Your task to perform on an android device: change keyboard looks Image 0: 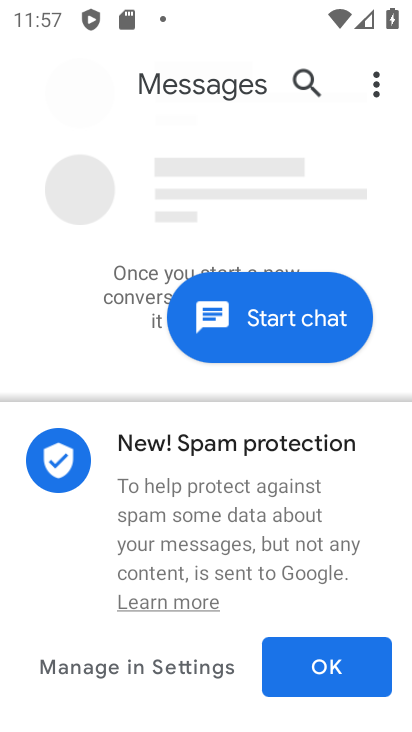
Step 0: press home button
Your task to perform on an android device: change keyboard looks Image 1: 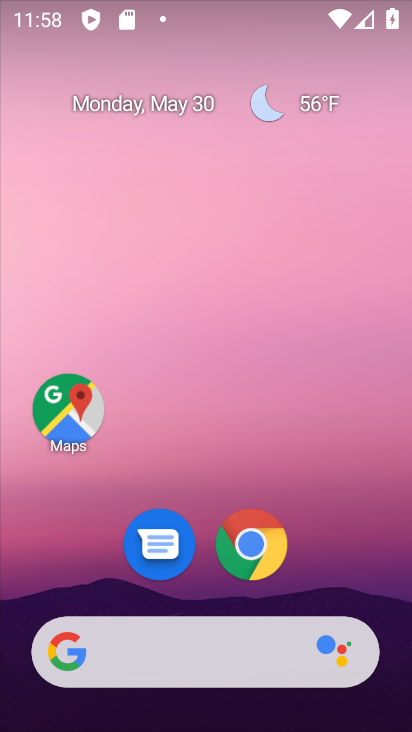
Step 1: drag from (345, 576) to (221, 15)
Your task to perform on an android device: change keyboard looks Image 2: 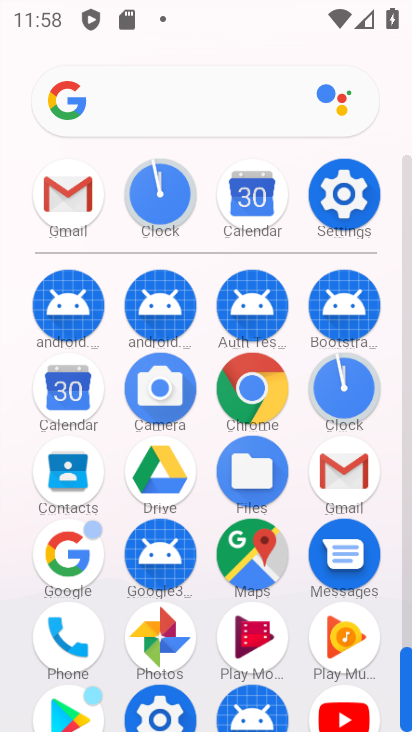
Step 2: click (343, 191)
Your task to perform on an android device: change keyboard looks Image 3: 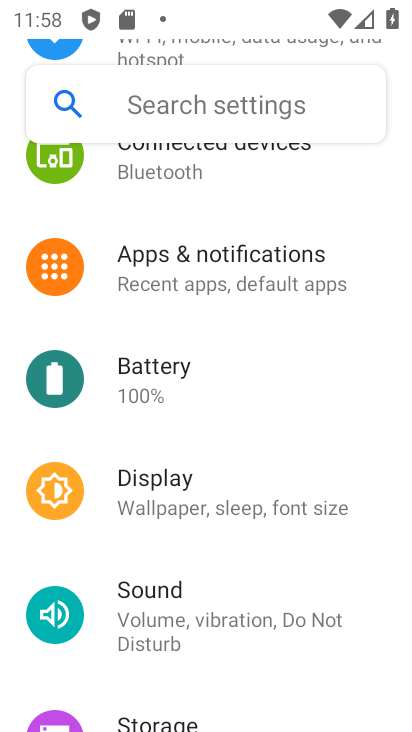
Step 3: drag from (247, 697) to (229, 306)
Your task to perform on an android device: change keyboard looks Image 4: 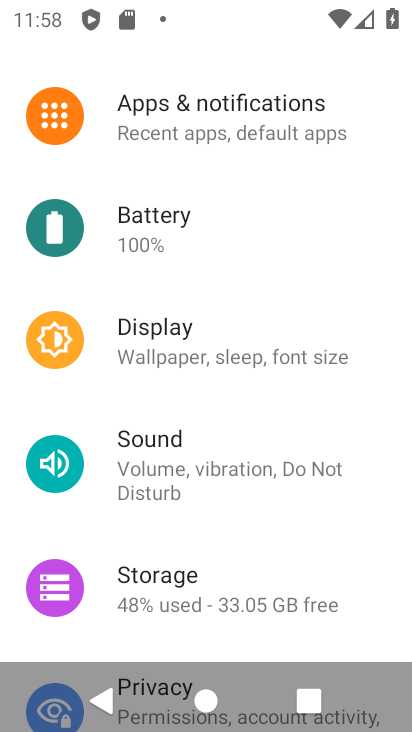
Step 4: drag from (262, 520) to (251, 37)
Your task to perform on an android device: change keyboard looks Image 5: 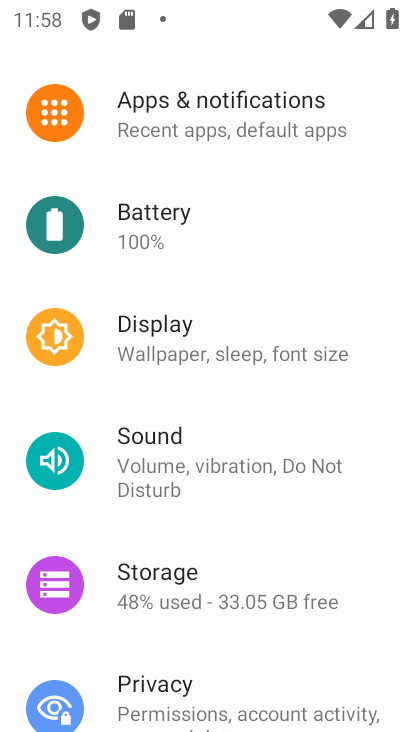
Step 5: drag from (226, 636) to (223, 293)
Your task to perform on an android device: change keyboard looks Image 6: 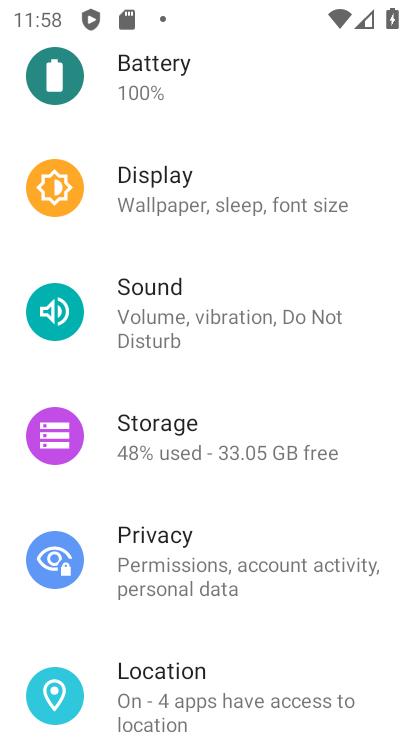
Step 6: drag from (229, 611) to (212, 285)
Your task to perform on an android device: change keyboard looks Image 7: 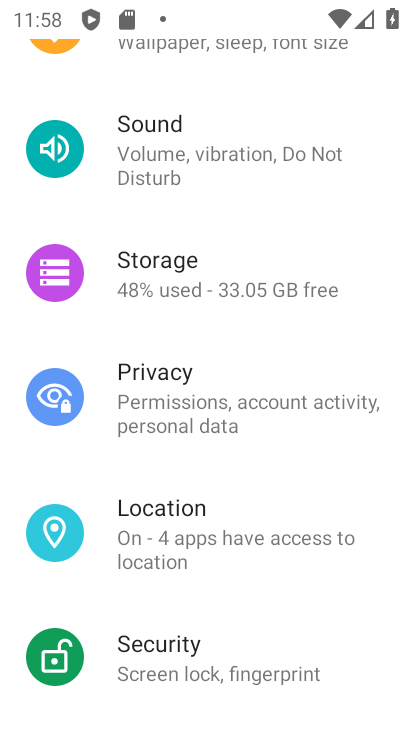
Step 7: drag from (275, 618) to (261, 434)
Your task to perform on an android device: change keyboard looks Image 8: 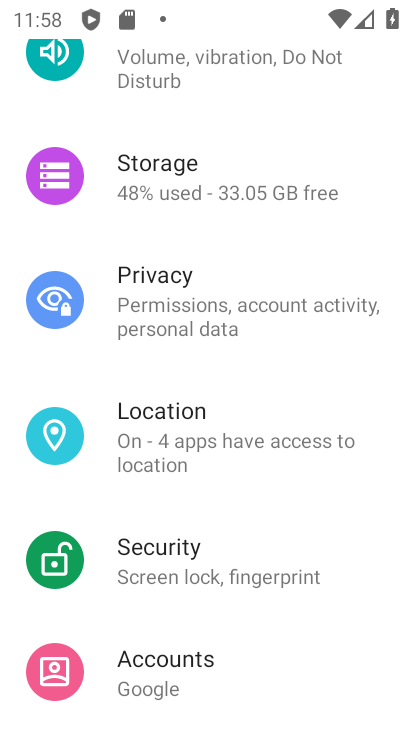
Step 8: drag from (231, 491) to (199, 96)
Your task to perform on an android device: change keyboard looks Image 9: 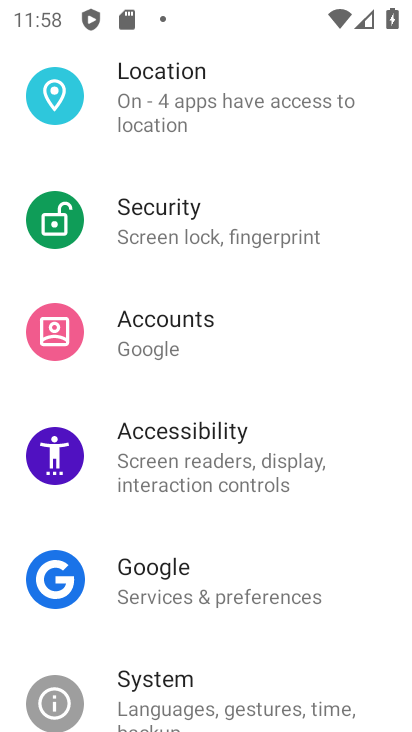
Step 9: drag from (220, 506) to (168, 159)
Your task to perform on an android device: change keyboard looks Image 10: 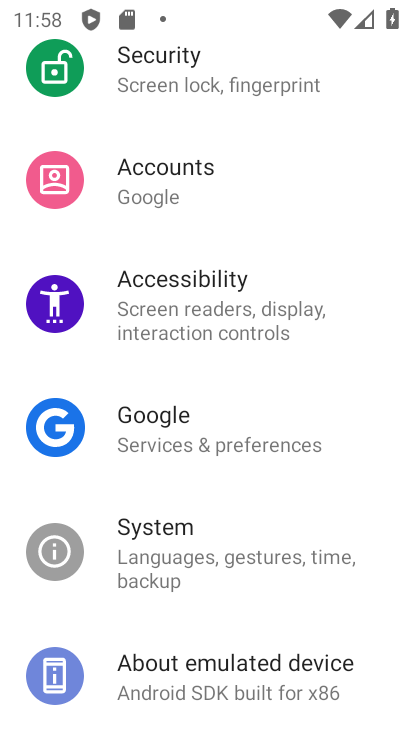
Step 10: click (157, 534)
Your task to perform on an android device: change keyboard looks Image 11: 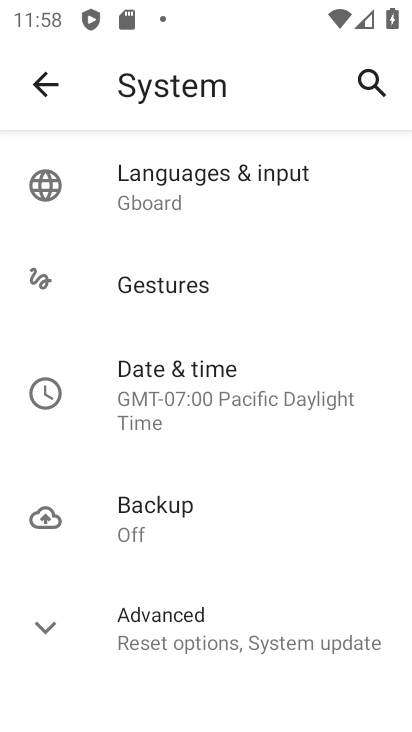
Step 11: click (150, 157)
Your task to perform on an android device: change keyboard looks Image 12: 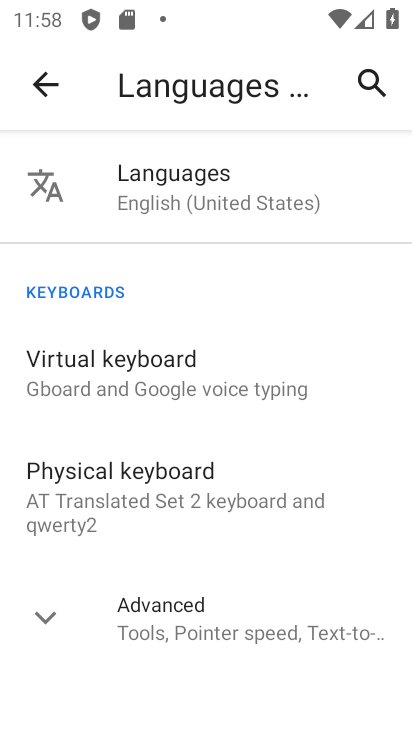
Step 12: click (119, 360)
Your task to perform on an android device: change keyboard looks Image 13: 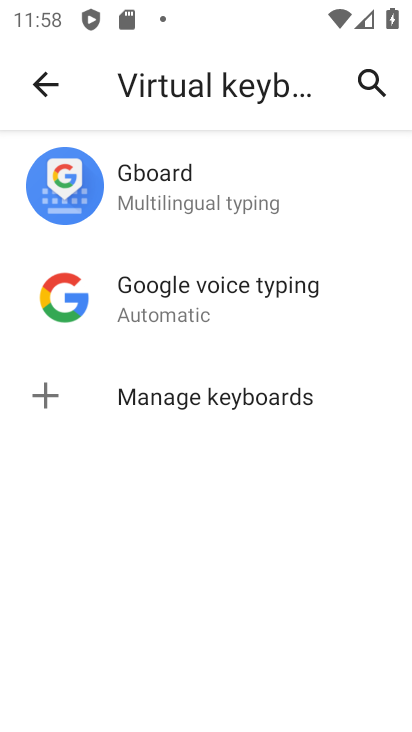
Step 13: click (136, 182)
Your task to perform on an android device: change keyboard looks Image 14: 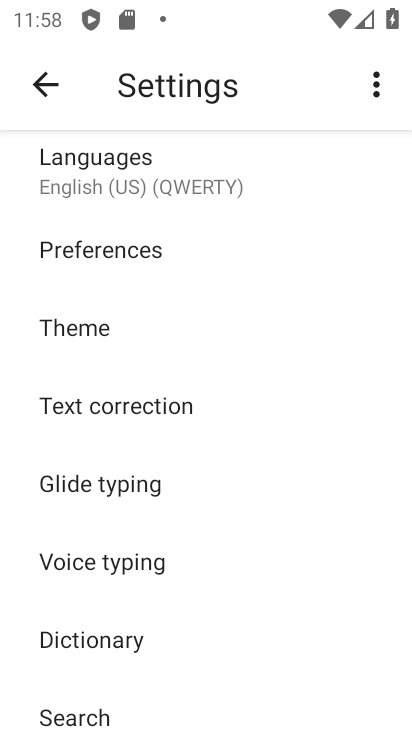
Step 14: click (66, 330)
Your task to perform on an android device: change keyboard looks Image 15: 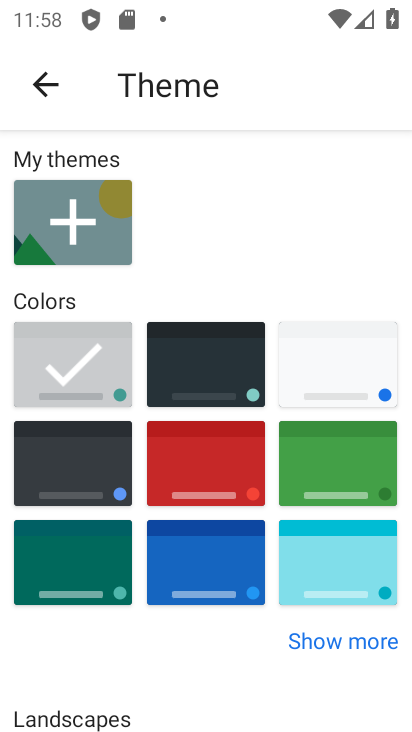
Step 15: click (227, 375)
Your task to perform on an android device: change keyboard looks Image 16: 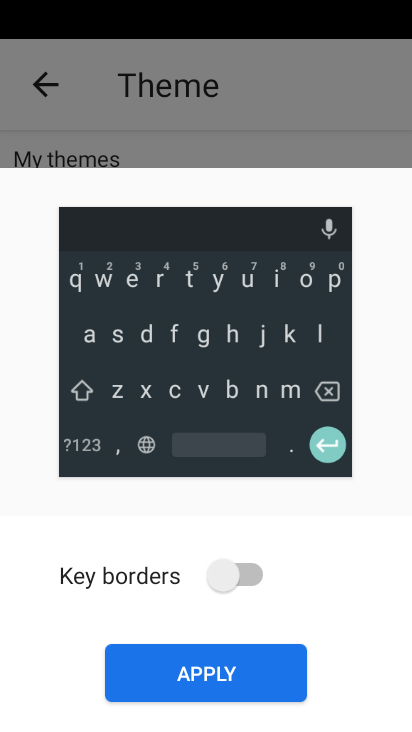
Step 16: click (205, 690)
Your task to perform on an android device: change keyboard looks Image 17: 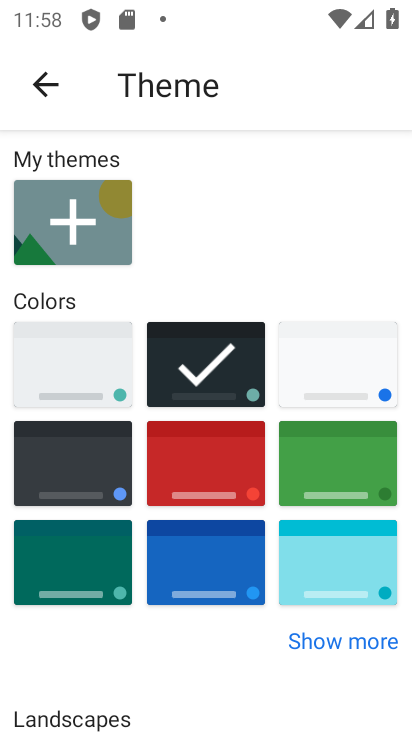
Step 17: task complete